Your task to perform on an android device: Open my contact list Image 0: 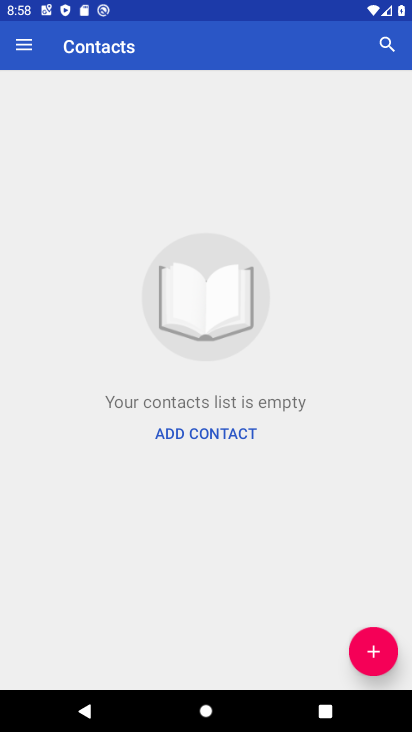
Step 0: press home button
Your task to perform on an android device: Open my contact list Image 1: 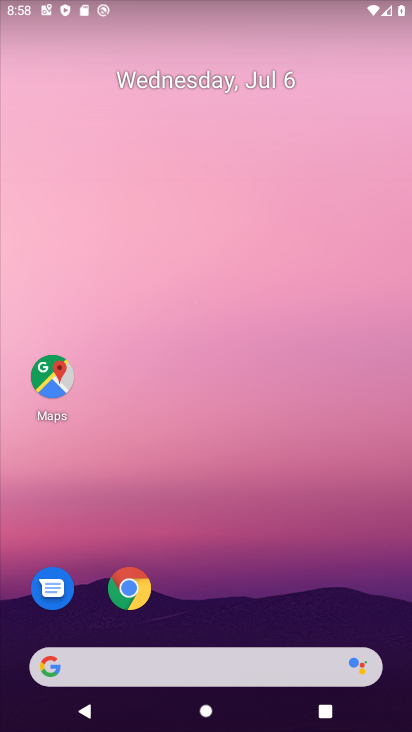
Step 1: drag from (206, 662) to (265, 93)
Your task to perform on an android device: Open my contact list Image 2: 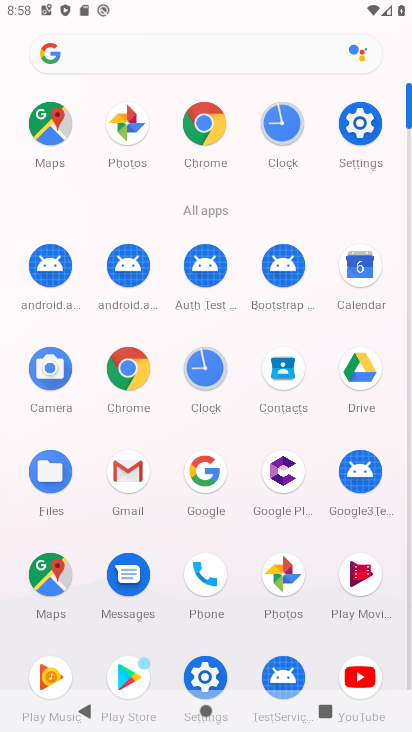
Step 2: click (280, 376)
Your task to perform on an android device: Open my contact list Image 3: 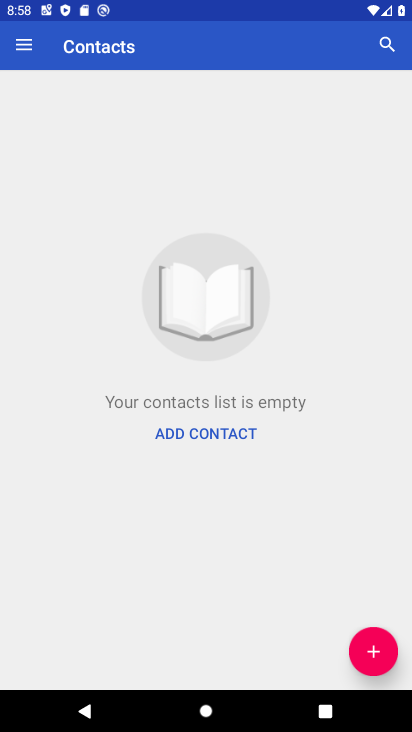
Step 3: task complete